Your task to perform on an android device: What's on my calendar tomorrow? Image 0: 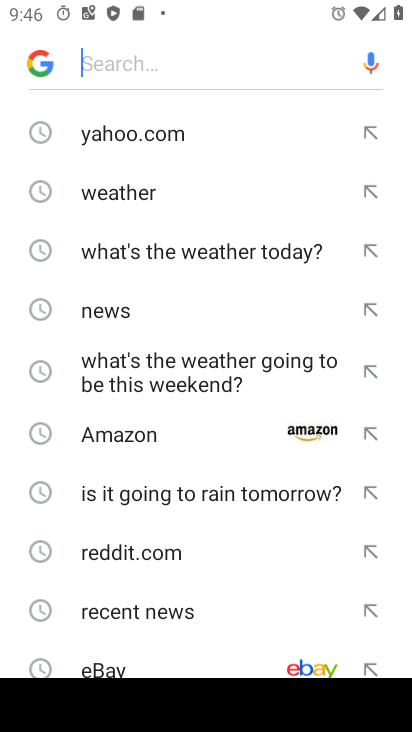
Step 0: press home button
Your task to perform on an android device: What's on my calendar tomorrow? Image 1: 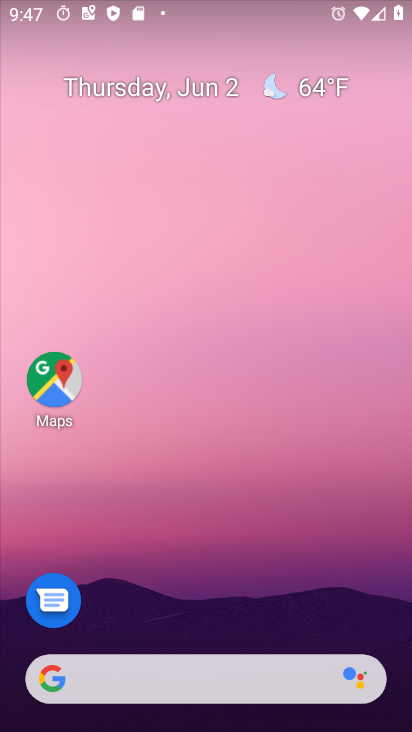
Step 1: drag from (212, 596) to (250, 152)
Your task to perform on an android device: What's on my calendar tomorrow? Image 2: 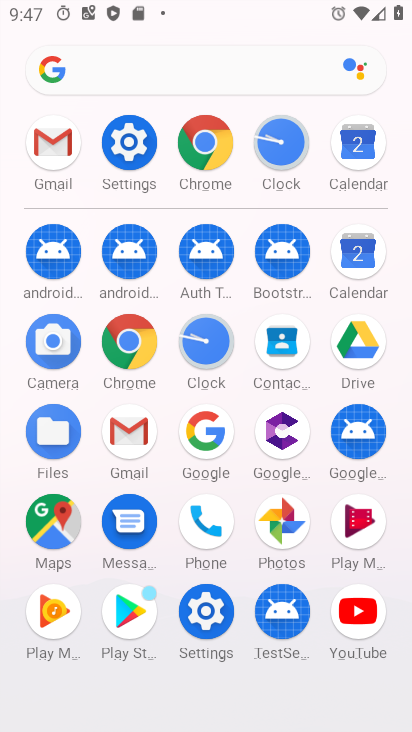
Step 2: click (363, 255)
Your task to perform on an android device: What's on my calendar tomorrow? Image 3: 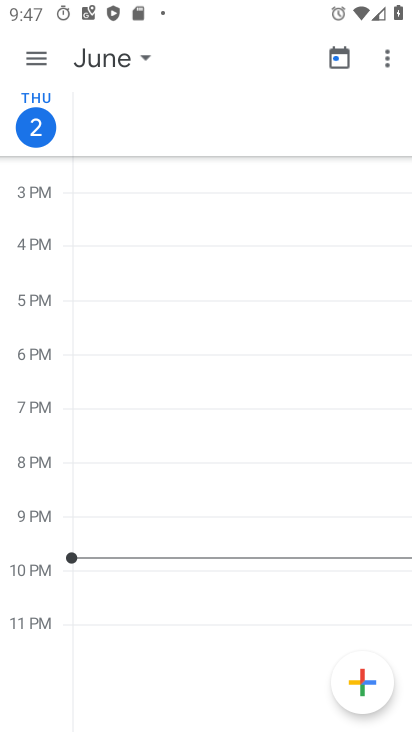
Step 3: click (135, 61)
Your task to perform on an android device: What's on my calendar tomorrow? Image 4: 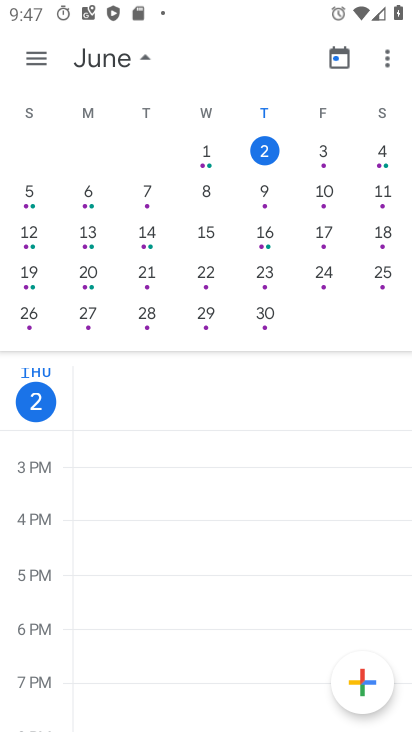
Step 4: click (325, 152)
Your task to perform on an android device: What's on my calendar tomorrow? Image 5: 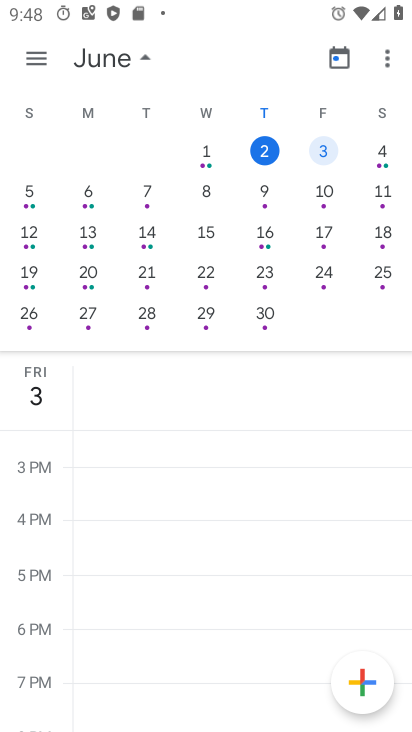
Step 5: task complete